Your task to perform on an android device: empty trash in google photos Image 0: 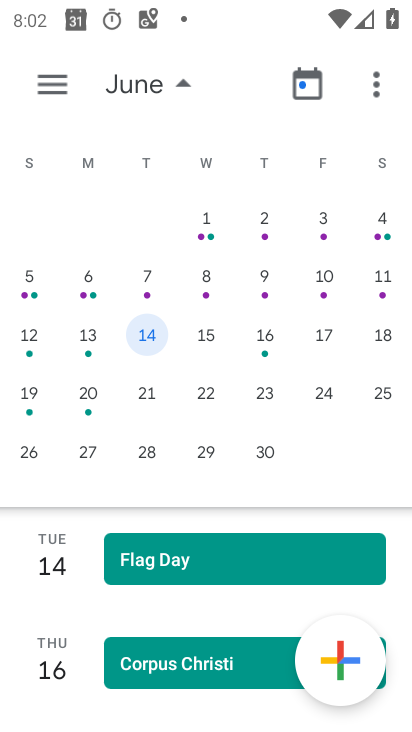
Step 0: press home button
Your task to perform on an android device: empty trash in google photos Image 1: 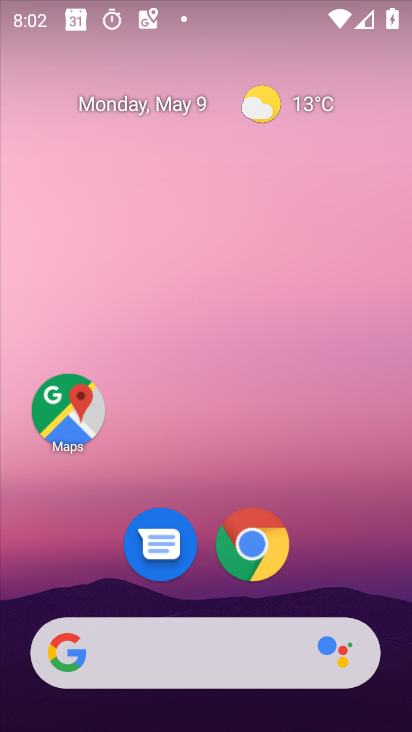
Step 1: drag from (353, 573) to (348, 35)
Your task to perform on an android device: empty trash in google photos Image 2: 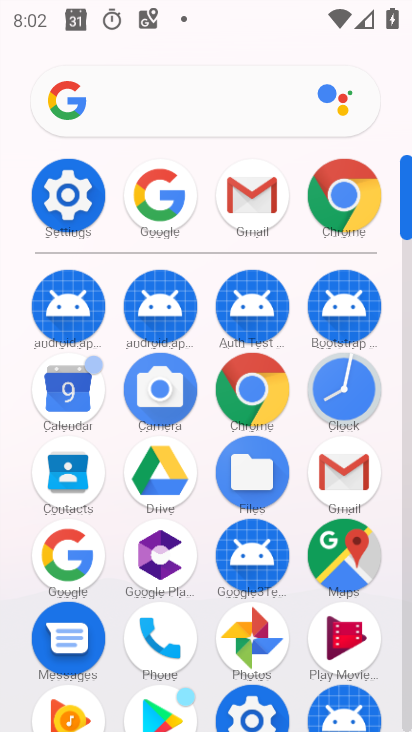
Step 2: click (264, 640)
Your task to perform on an android device: empty trash in google photos Image 3: 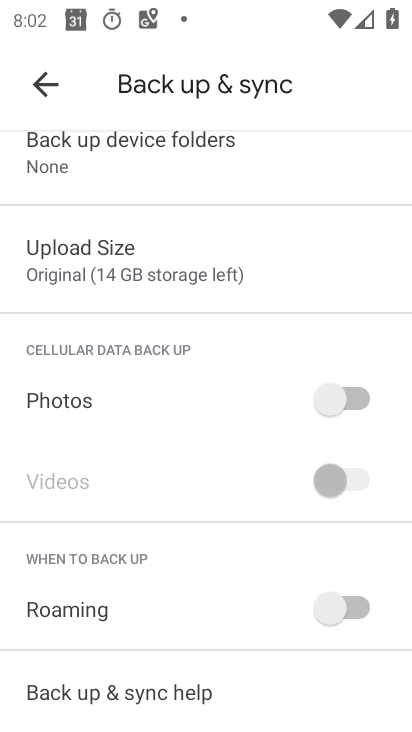
Step 3: click (27, 82)
Your task to perform on an android device: empty trash in google photos Image 4: 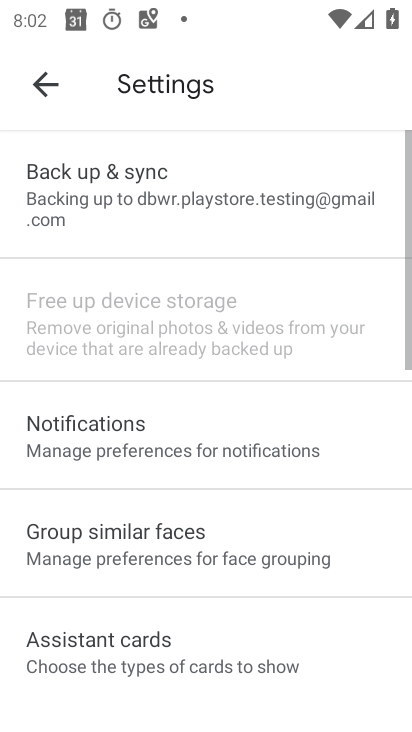
Step 4: click (28, 82)
Your task to perform on an android device: empty trash in google photos Image 5: 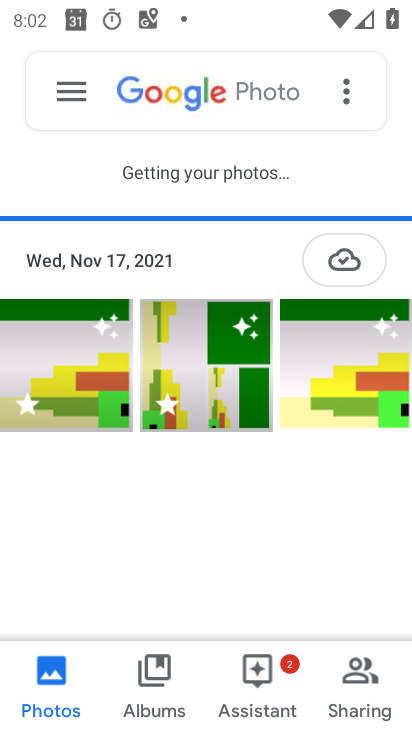
Step 5: click (62, 101)
Your task to perform on an android device: empty trash in google photos Image 6: 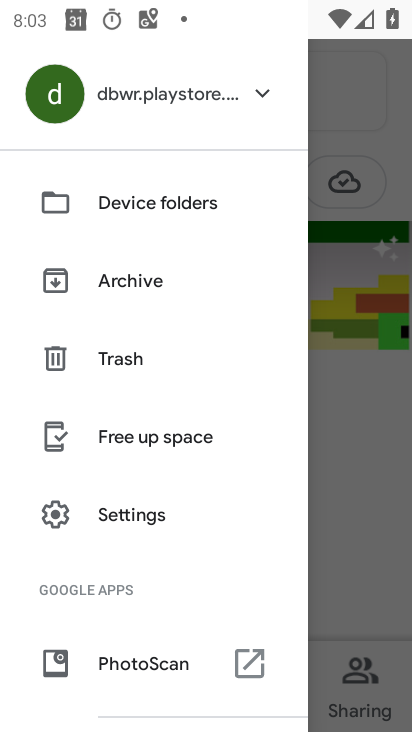
Step 6: click (115, 377)
Your task to perform on an android device: empty trash in google photos Image 7: 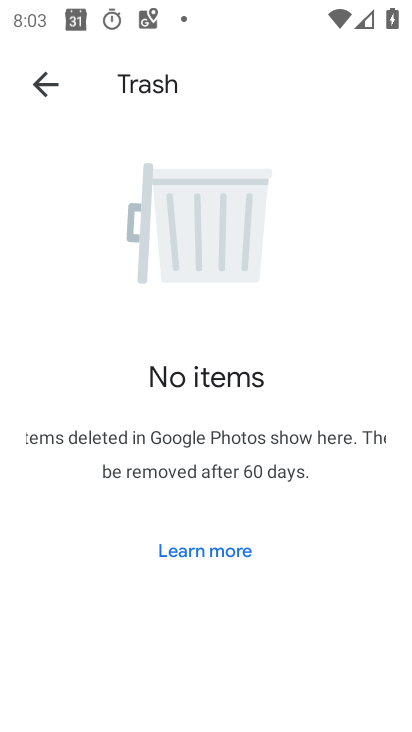
Step 7: task complete